Your task to perform on an android device: turn vacation reply on in the gmail app Image 0: 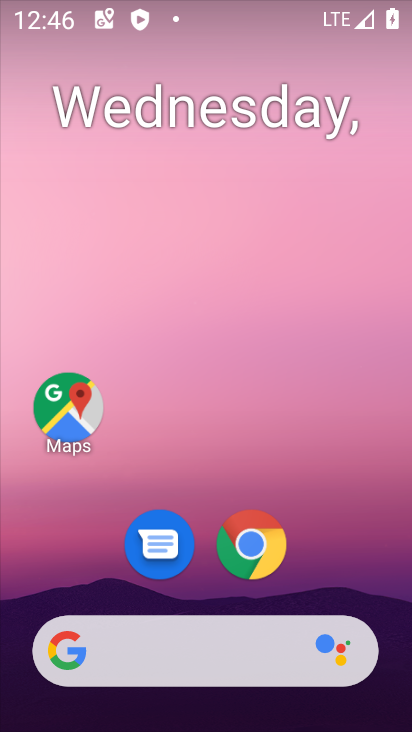
Step 0: drag from (393, 644) to (297, 34)
Your task to perform on an android device: turn vacation reply on in the gmail app Image 1: 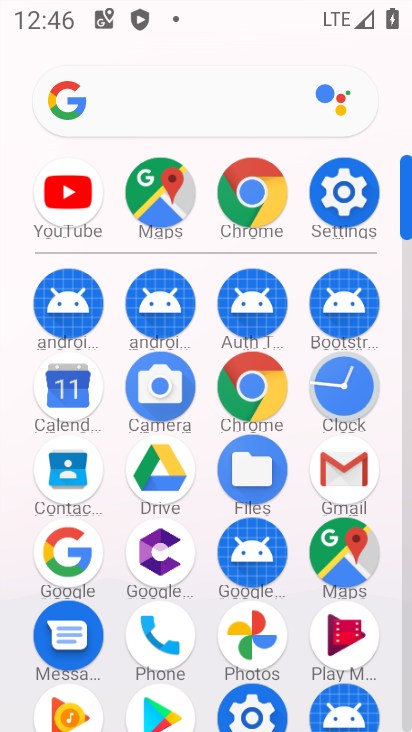
Step 1: click (347, 447)
Your task to perform on an android device: turn vacation reply on in the gmail app Image 2: 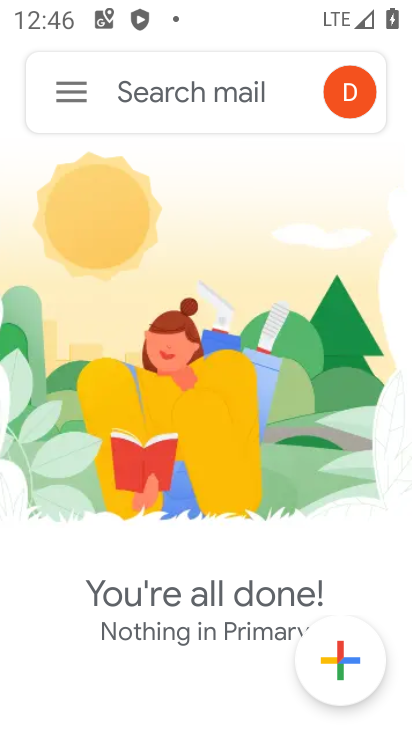
Step 2: click (57, 87)
Your task to perform on an android device: turn vacation reply on in the gmail app Image 3: 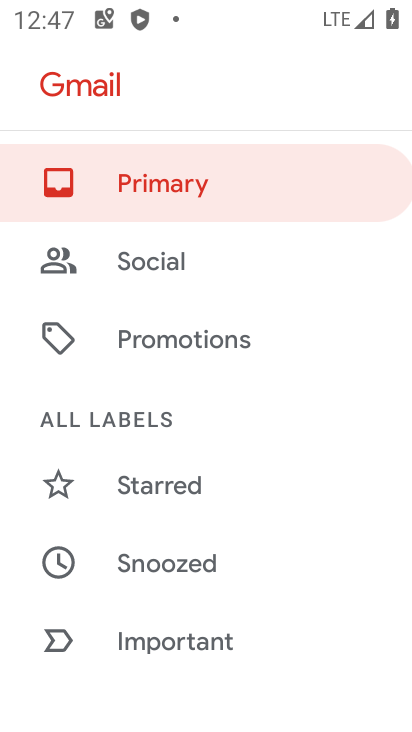
Step 3: drag from (163, 676) to (295, 72)
Your task to perform on an android device: turn vacation reply on in the gmail app Image 4: 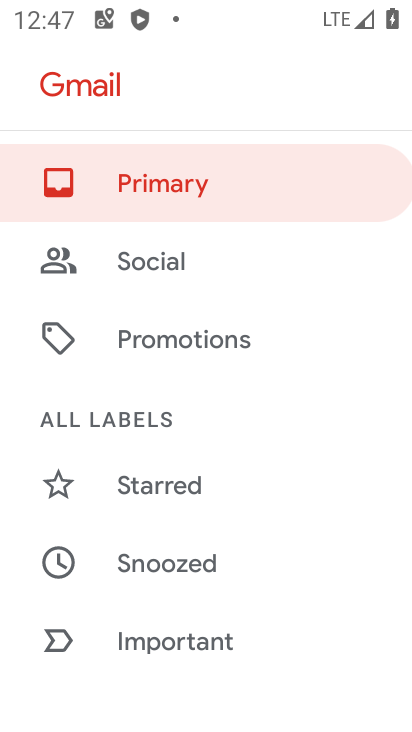
Step 4: drag from (164, 663) to (215, 153)
Your task to perform on an android device: turn vacation reply on in the gmail app Image 5: 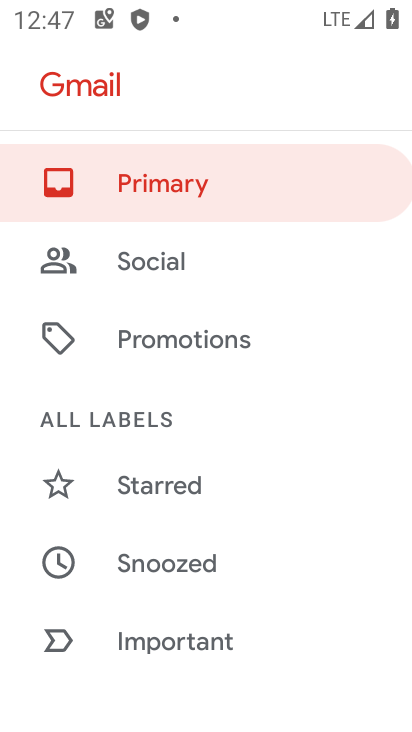
Step 5: drag from (157, 605) to (135, 37)
Your task to perform on an android device: turn vacation reply on in the gmail app Image 6: 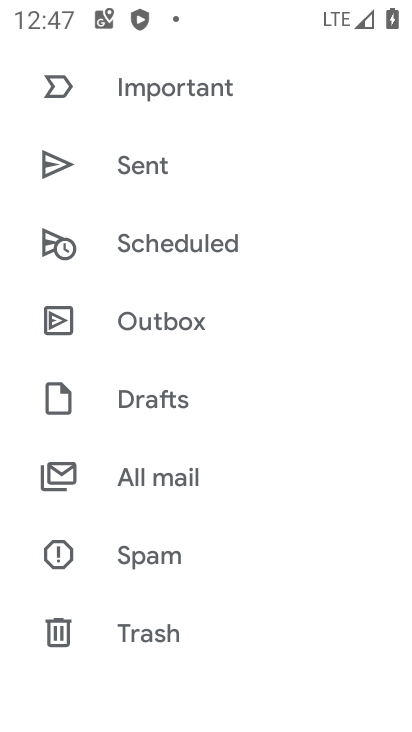
Step 6: drag from (167, 609) to (209, 3)
Your task to perform on an android device: turn vacation reply on in the gmail app Image 7: 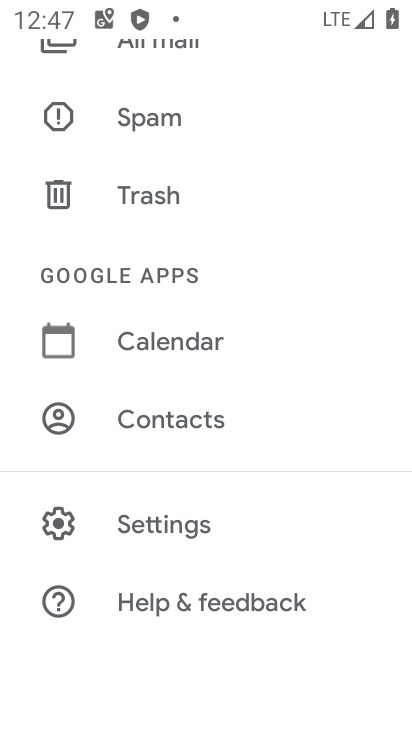
Step 7: click (191, 538)
Your task to perform on an android device: turn vacation reply on in the gmail app Image 8: 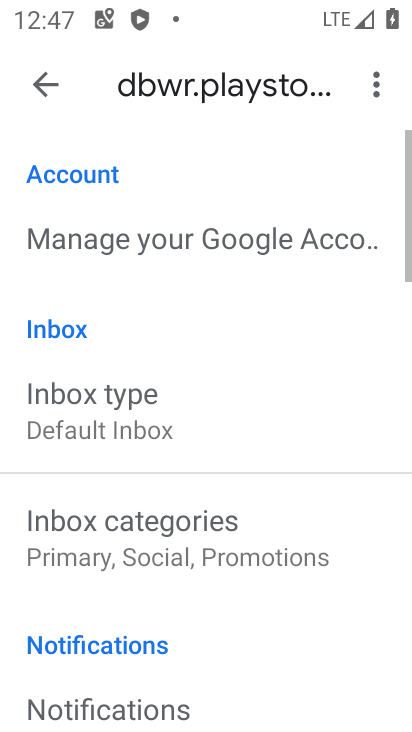
Step 8: drag from (188, 657) to (299, 37)
Your task to perform on an android device: turn vacation reply on in the gmail app Image 9: 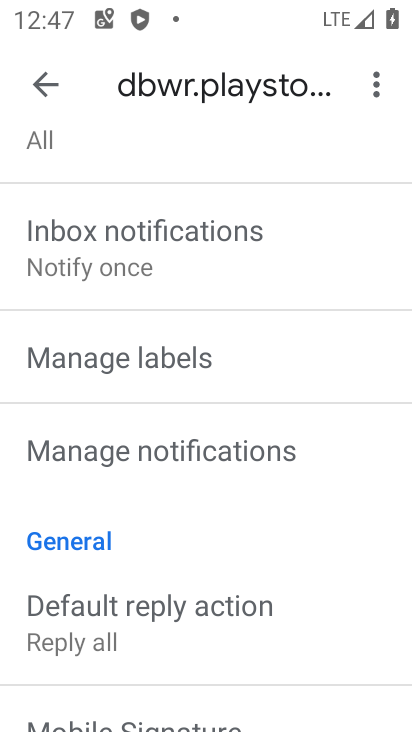
Step 9: drag from (154, 637) to (290, 44)
Your task to perform on an android device: turn vacation reply on in the gmail app Image 10: 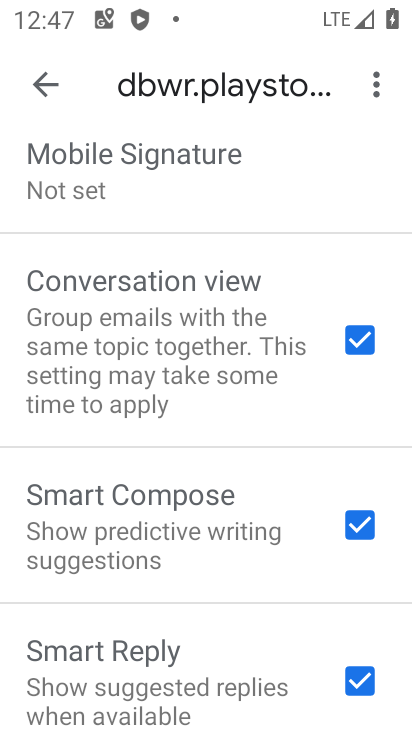
Step 10: drag from (204, 636) to (260, 129)
Your task to perform on an android device: turn vacation reply on in the gmail app Image 11: 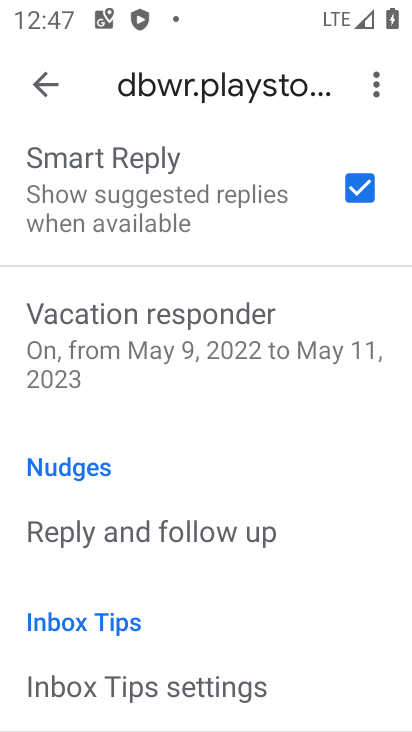
Step 11: click (226, 338)
Your task to perform on an android device: turn vacation reply on in the gmail app Image 12: 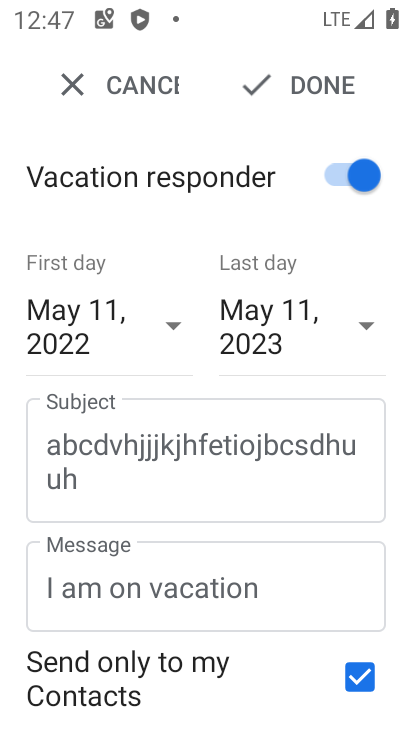
Step 12: task complete